Your task to perform on an android device: turn on improve location accuracy Image 0: 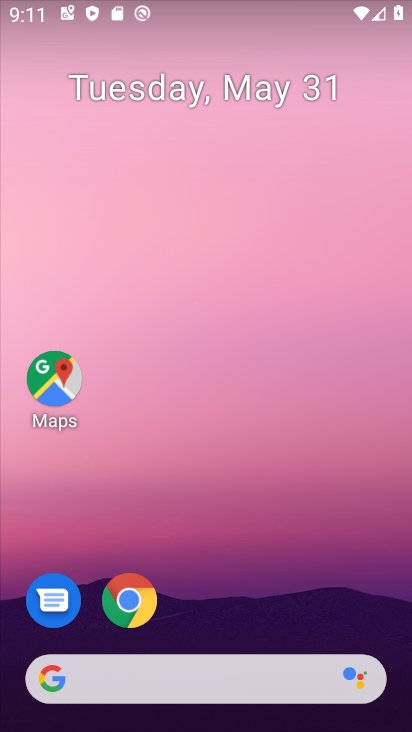
Step 0: press home button
Your task to perform on an android device: turn on improve location accuracy Image 1: 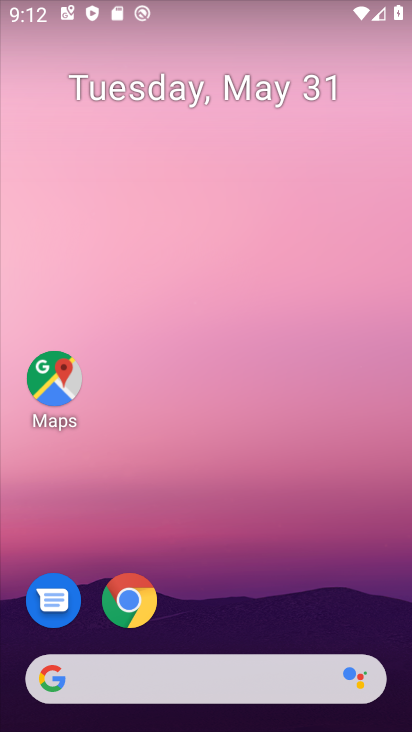
Step 1: drag from (294, 702) to (344, 147)
Your task to perform on an android device: turn on improve location accuracy Image 2: 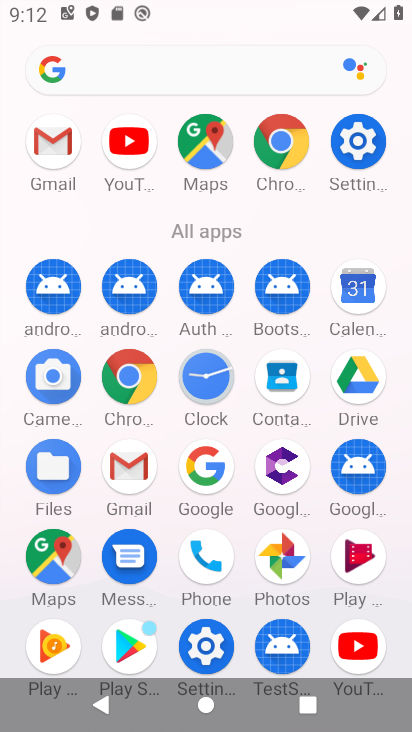
Step 2: drag from (362, 148) to (233, 510)
Your task to perform on an android device: turn on improve location accuracy Image 3: 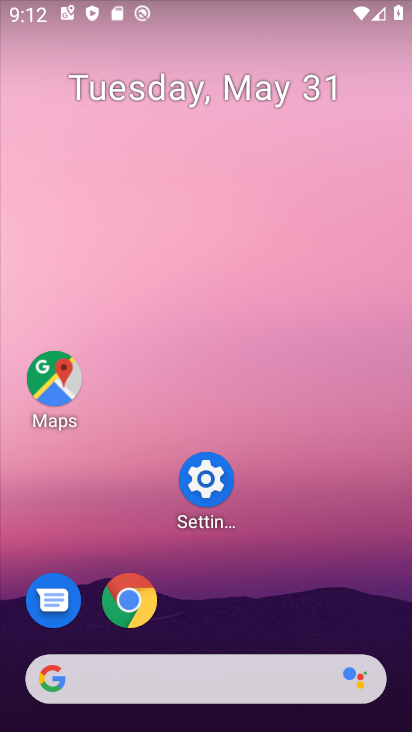
Step 3: click (207, 476)
Your task to perform on an android device: turn on improve location accuracy Image 4: 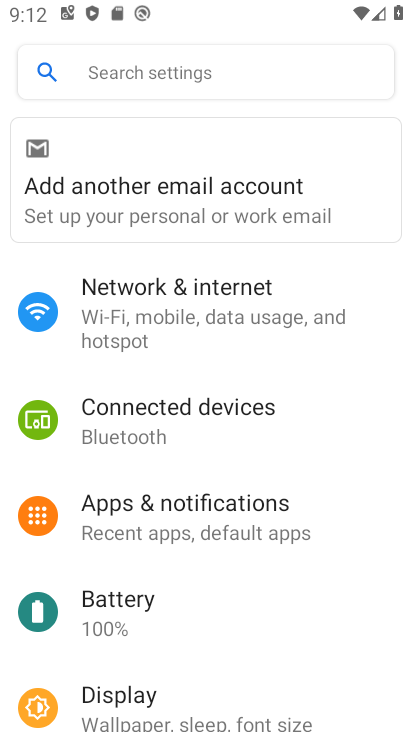
Step 4: click (142, 68)
Your task to perform on an android device: turn on improve location accuracy Image 5: 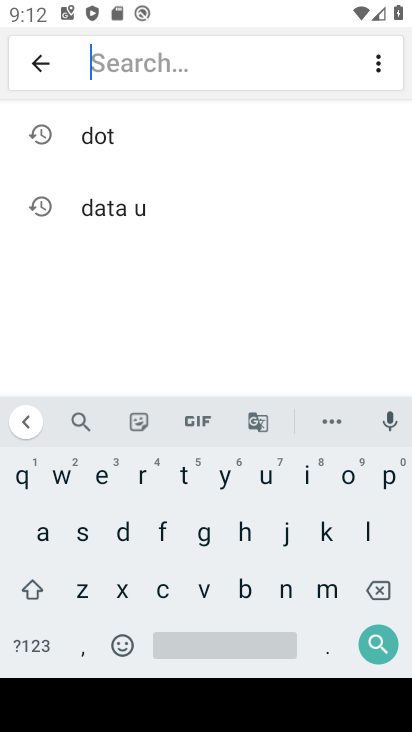
Step 5: click (43, 535)
Your task to perform on an android device: turn on improve location accuracy Image 6: 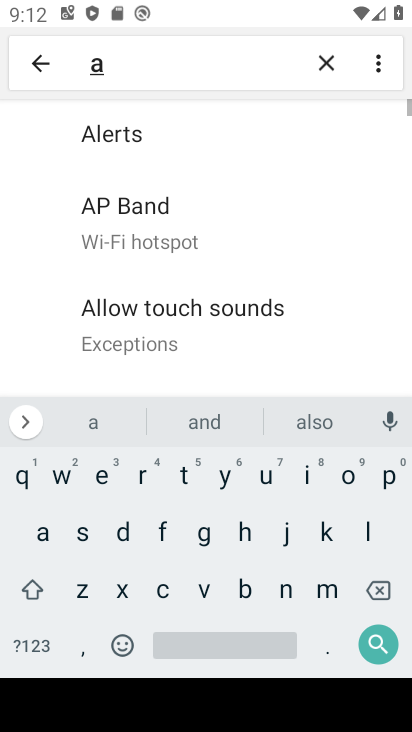
Step 6: click (167, 584)
Your task to perform on an android device: turn on improve location accuracy Image 7: 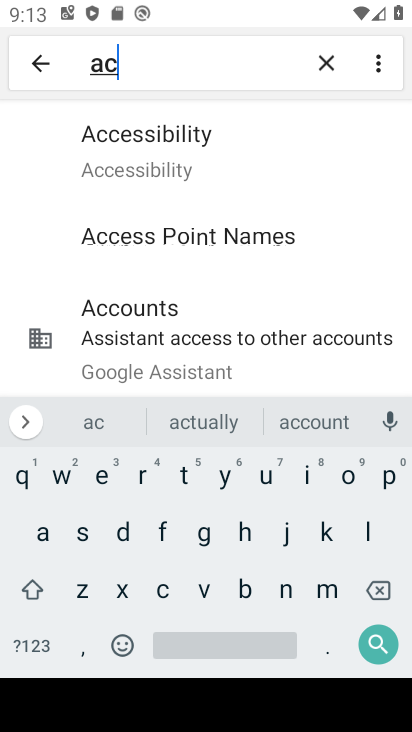
Step 7: click (145, 154)
Your task to perform on an android device: turn on improve location accuracy Image 8: 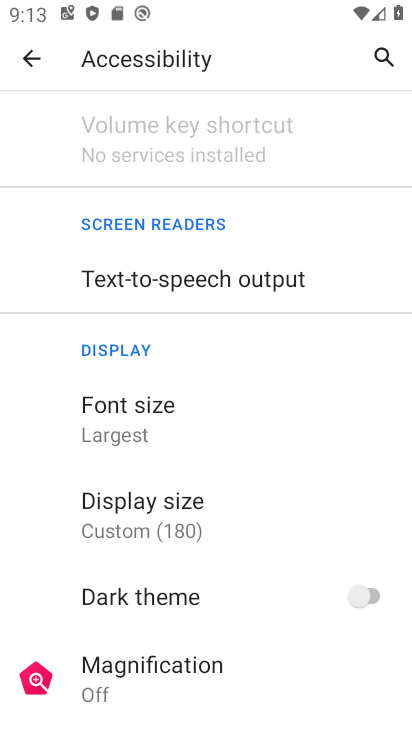
Step 8: task complete